Your task to perform on an android device: manage bookmarks in the chrome app Image 0: 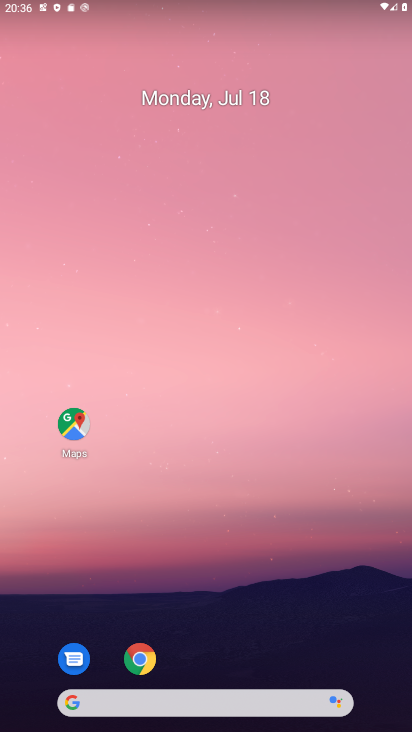
Step 0: drag from (237, 614) to (197, 270)
Your task to perform on an android device: manage bookmarks in the chrome app Image 1: 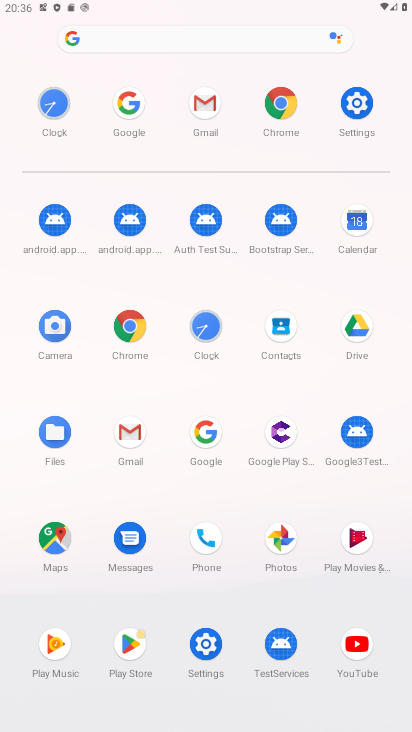
Step 1: click (279, 103)
Your task to perform on an android device: manage bookmarks in the chrome app Image 2: 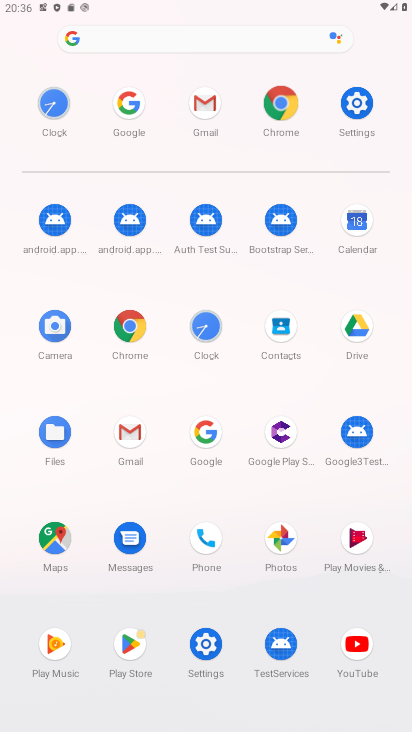
Step 2: click (279, 103)
Your task to perform on an android device: manage bookmarks in the chrome app Image 3: 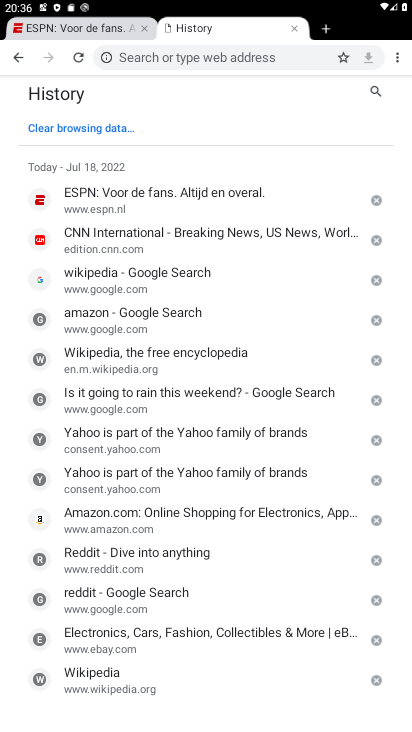
Step 3: click (18, 51)
Your task to perform on an android device: manage bookmarks in the chrome app Image 4: 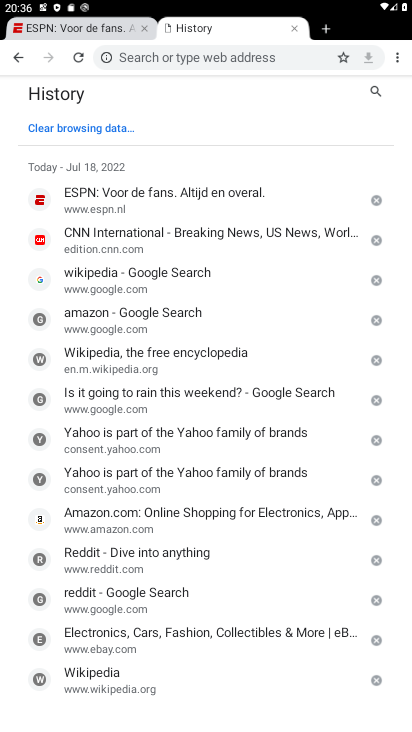
Step 4: click (18, 51)
Your task to perform on an android device: manage bookmarks in the chrome app Image 5: 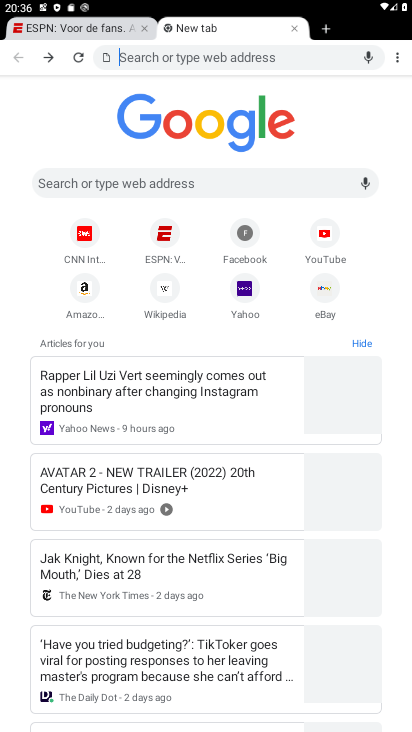
Step 5: click (18, 51)
Your task to perform on an android device: manage bookmarks in the chrome app Image 6: 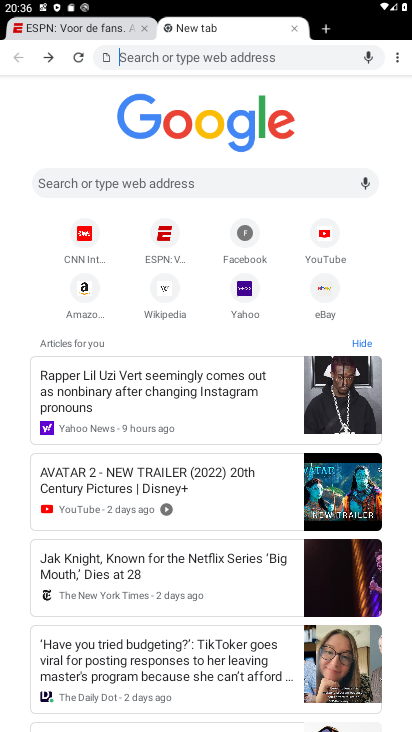
Step 6: drag from (399, 53) to (279, 111)
Your task to perform on an android device: manage bookmarks in the chrome app Image 7: 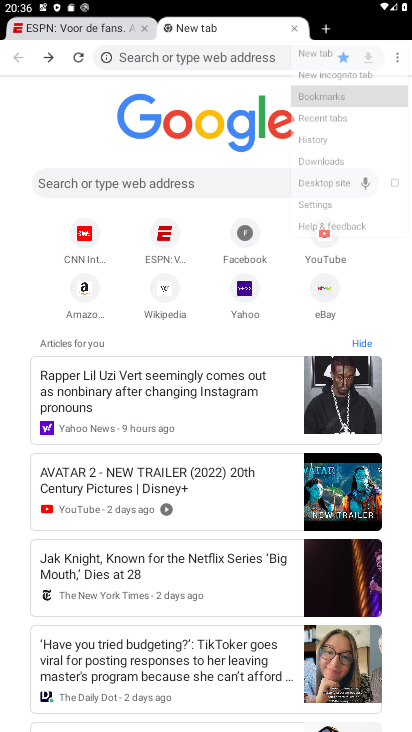
Step 7: click (280, 112)
Your task to perform on an android device: manage bookmarks in the chrome app Image 8: 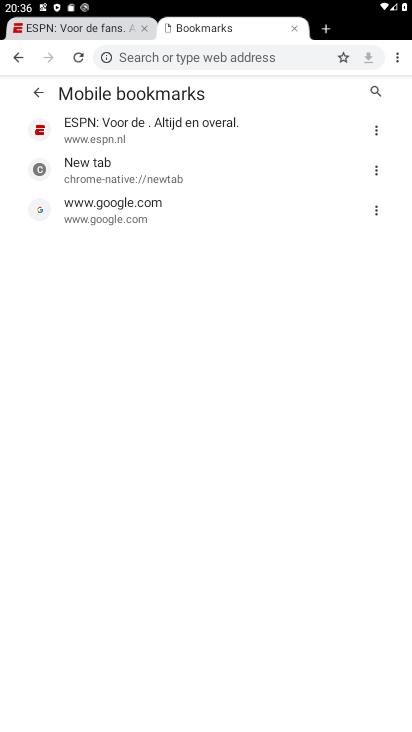
Step 8: click (373, 132)
Your task to perform on an android device: manage bookmarks in the chrome app Image 9: 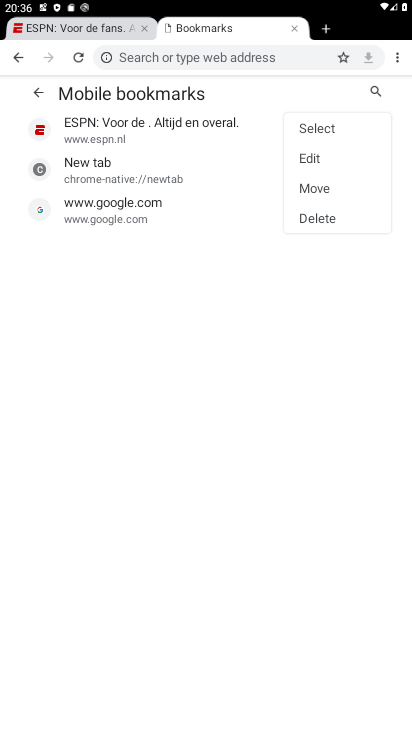
Step 9: click (312, 217)
Your task to perform on an android device: manage bookmarks in the chrome app Image 10: 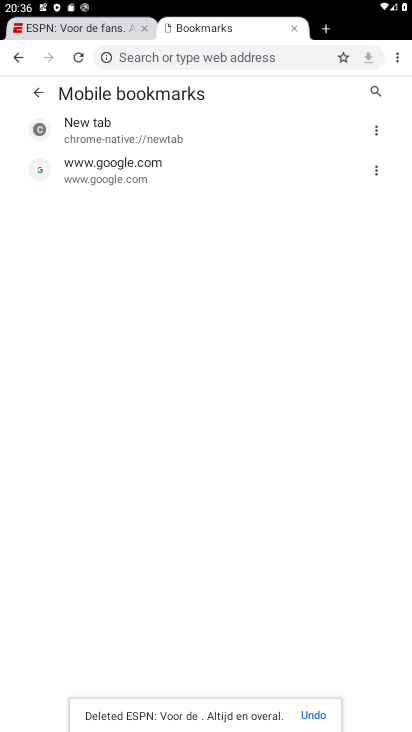
Step 10: task complete